Your task to perform on an android device: Go to Android settings Image 0: 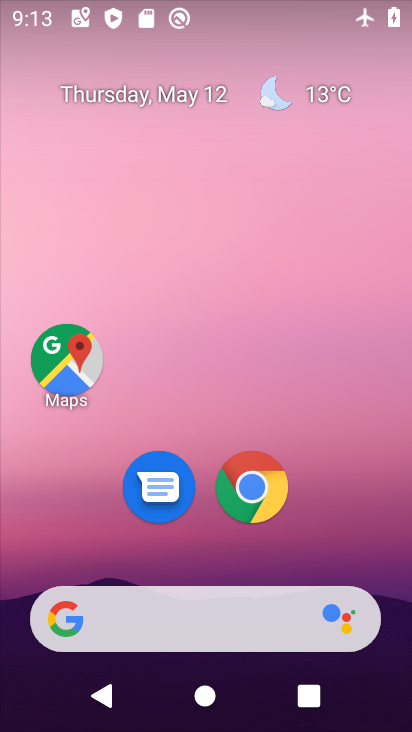
Step 0: drag from (207, 556) to (247, 182)
Your task to perform on an android device: Go to Android settings Image 1: 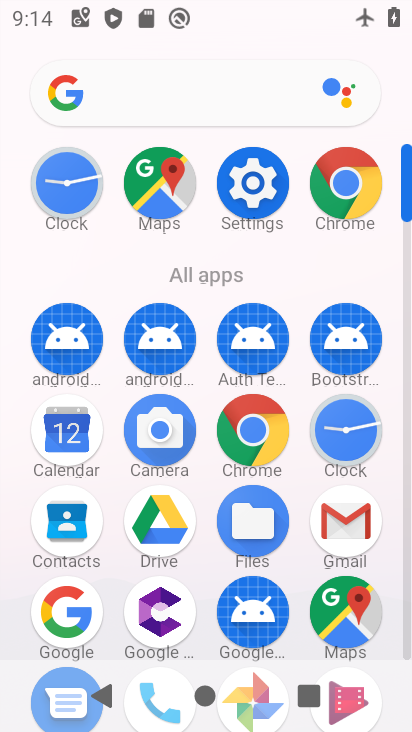
Step 1: click (259, 197)
Your task to perform on an android device: Go to Android settings Image 2: 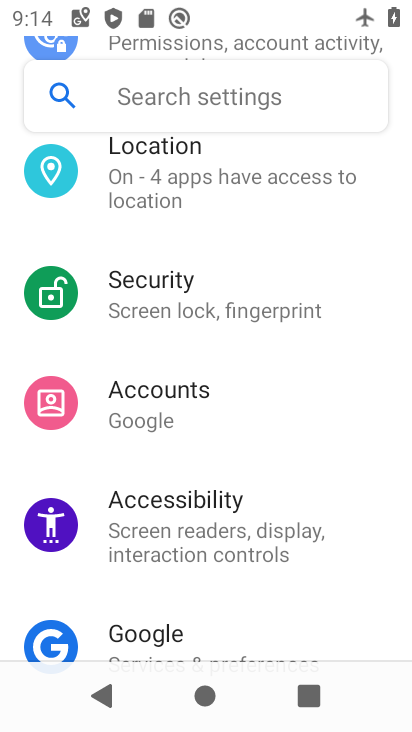
Step 2: task complete